Your task to perform on an android device: open device folders in google photos Image 0: 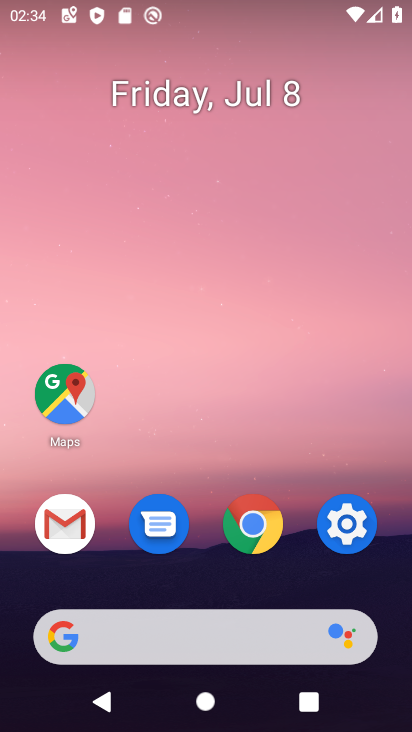
Step 0: drag from (226, 667) to (216, 264)
Your task to perform on an android device: open device folders in google photos Image 1: 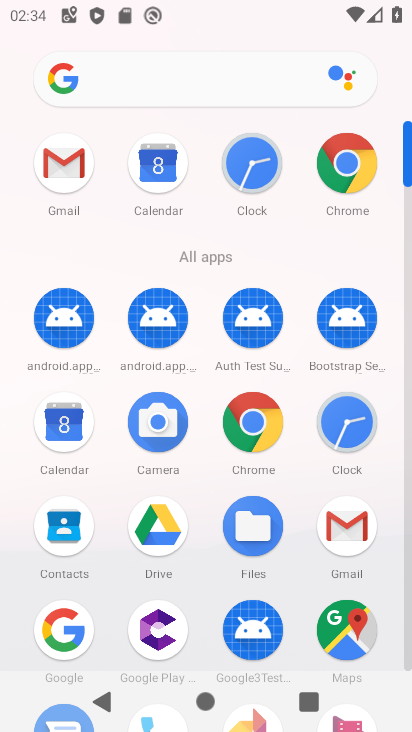
Step 1: drag from (204, 585) to (203, 443)
Your task to perform on an android device: open device folders in google photos Image 2: 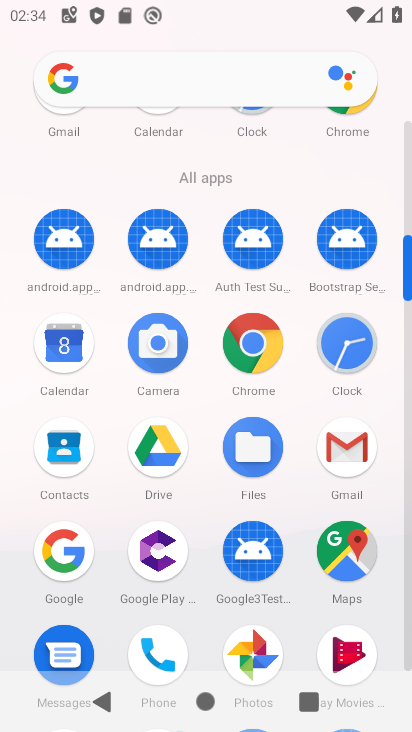
Step 2: click (242, 647)
Your task to perform on an android device: open device folders in google photos Image 3: 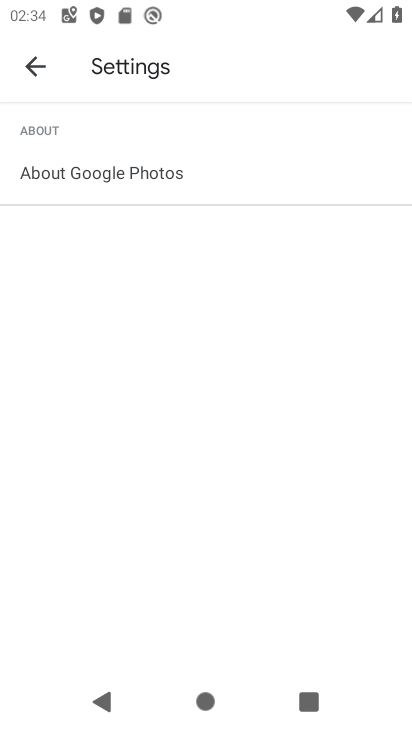
Step 3: click (22, 76)
Your task to perform on an android device: open device folders in google photos Image 4: 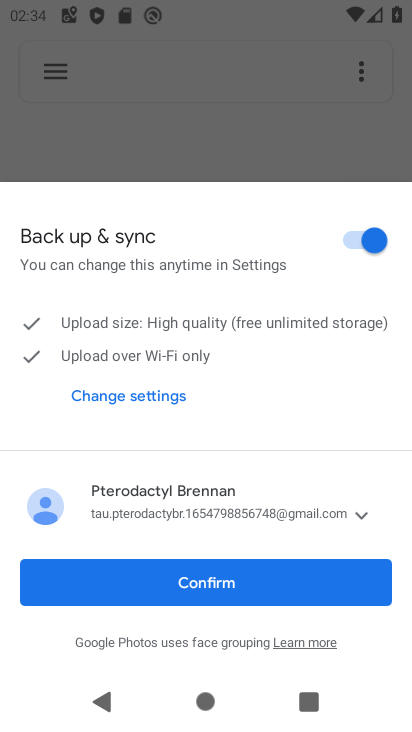
Step 4: click (43, 73)
Your task to perform on an android device: open device folders in google photos Image 5: 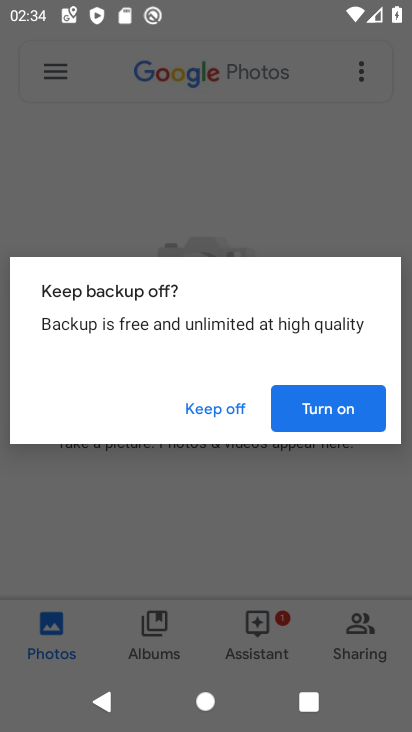
Step 5: click (223, 408)
Your task to perform on an android device: open device folders in google photos Image 6: 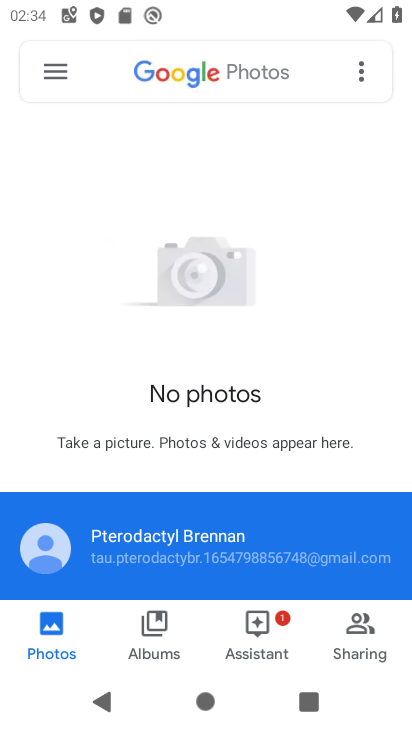
Step 6: click (55, 71)
Your task to perform on an android device: open device folders in google photos Image 7: 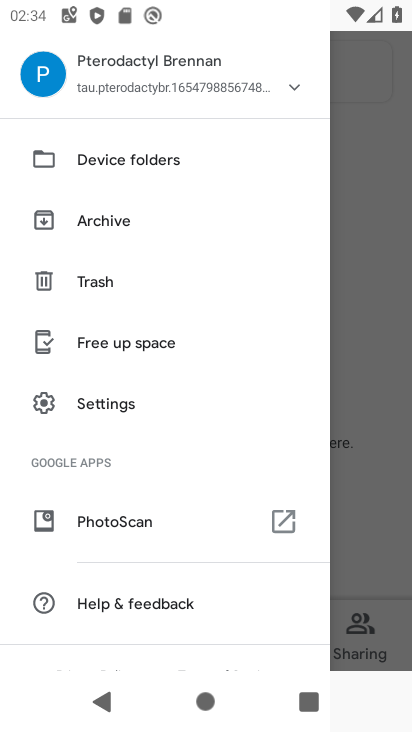
Step 7: click (112, 165)
Your task to perform on an android device: open device folders in google photos Image 8: 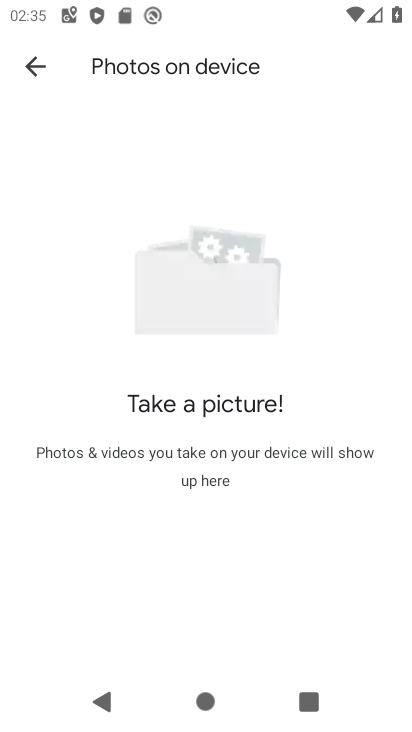
Step 8: task complete